Your task to perform on an android device: open device folders in google photos Image 0: 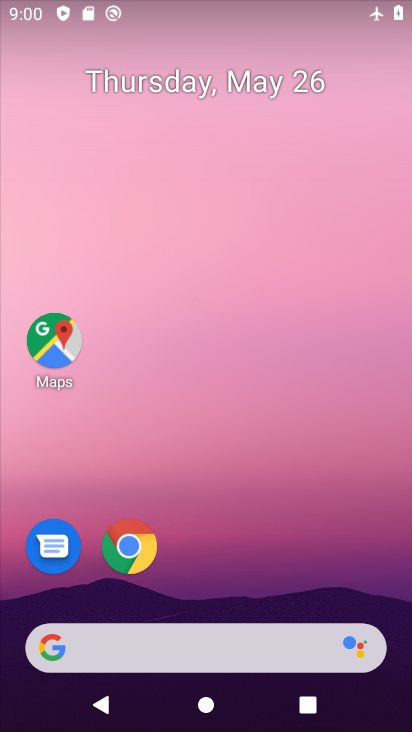
Step 0: drag from (226, 594) to (236, 237)
Your task to perform on an android device: open device folders in google photos Image 1: 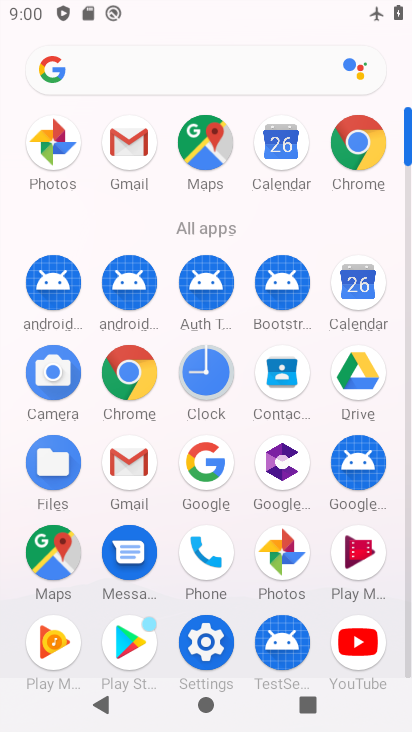
Step 1: click (58, 131)
Your task to perform on an android device: open device folders in google photos Image 2: 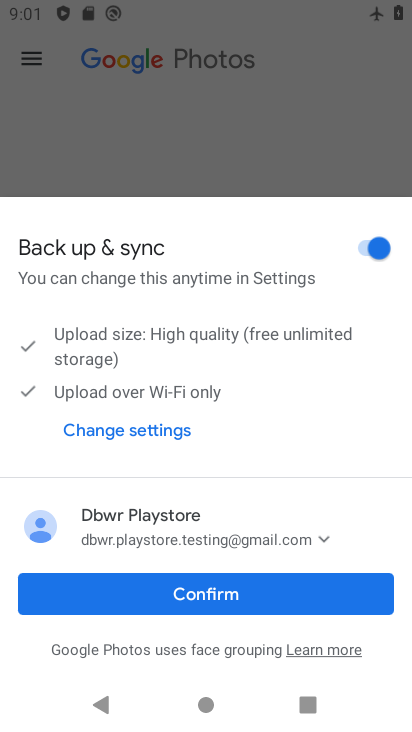
Step 2: click (191, 585)
Your task to perform on an android device: open device folders in google photos Image 3: 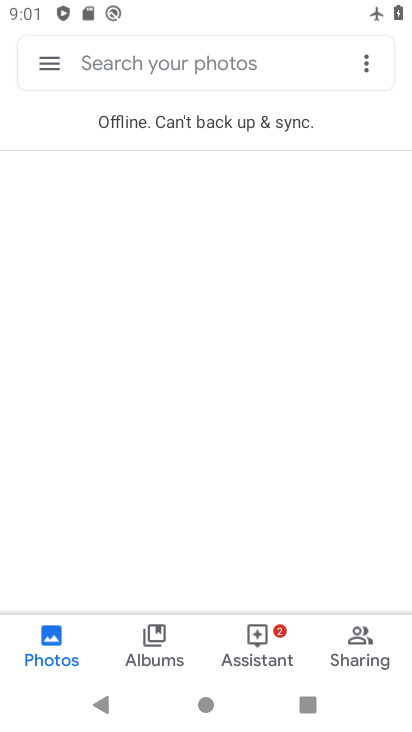
Step 3: click (46, 53)
Your task to perform on an android device: open device folders in google photos Image 4: 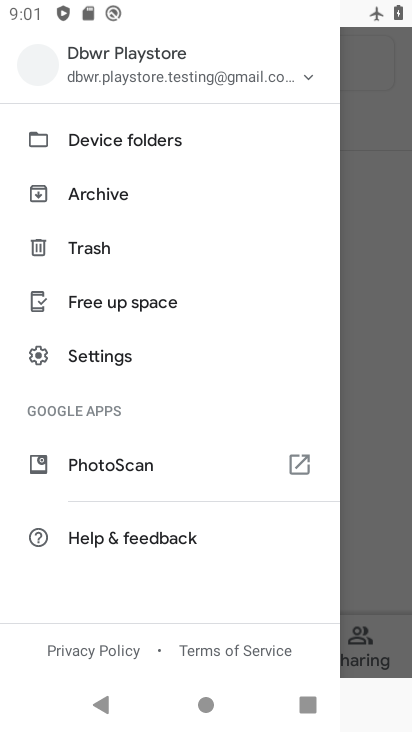
Step 4: click (97, 153)
Your task to perform on an android device: open device folders in google photos Image 5: 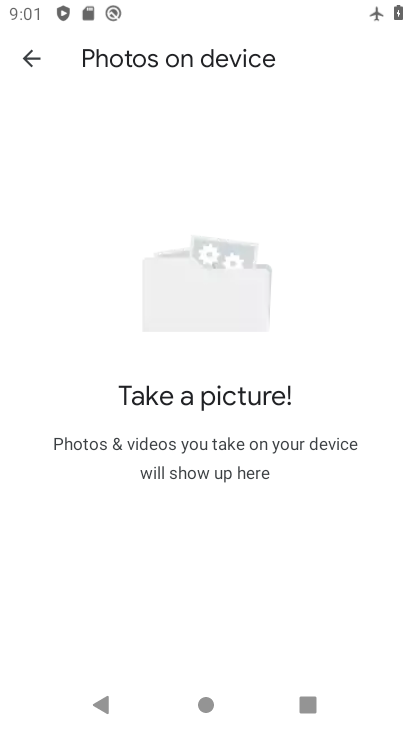
Step 5: task complete